Your task to perform on an android device: delete the emails in spam in the gmail app Image 0: 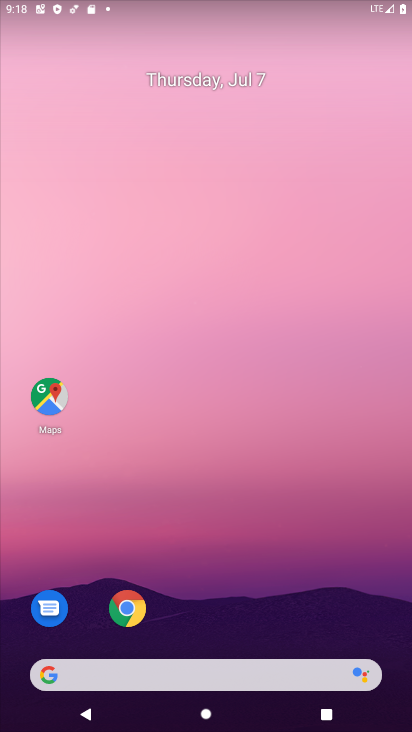
Step 0: drag from (178, 648) to (153, 131)
Your task to perform on an android device: delete the emails in spam in the gmail app Image 1: 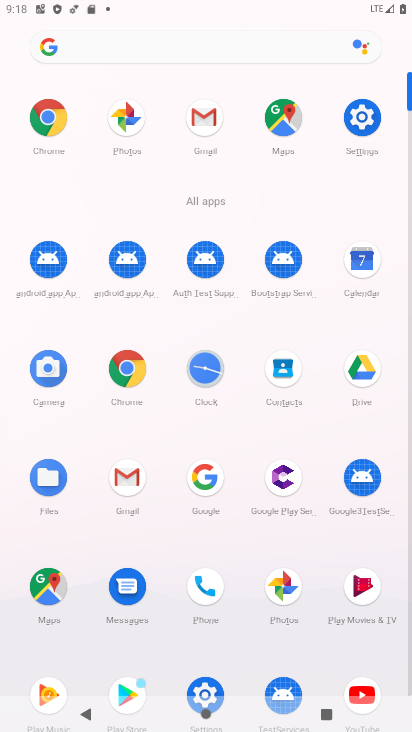
Step 1: click (204, 117)
Your task to perform on an android device: delete the emails in spam in the gmail app Image 2: 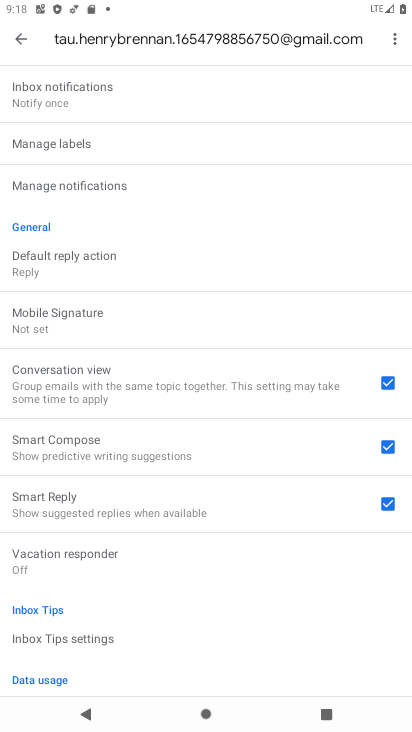
Step 2: press back button
Your task to perform on an android device: delete the emails in spam in the gmail app Image 3: 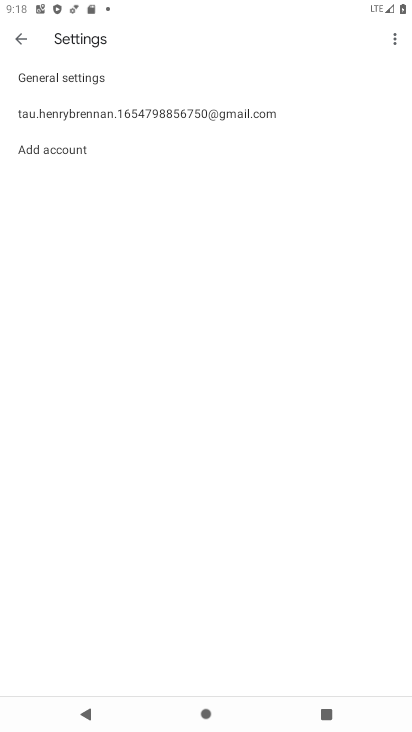
Step 3: press back button
Your task to perform on an android device: delete the emails in spam in the gmail app Image 4: 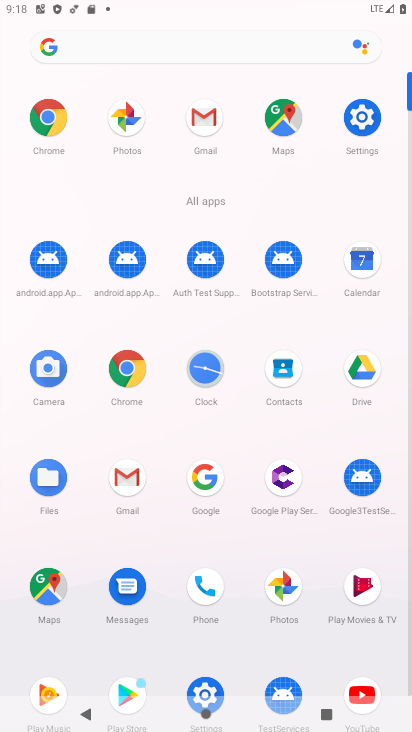
Step 4: click (210, 117)
Your task to perform on an android device: delete the emails in spam in the gmail app Image 5: 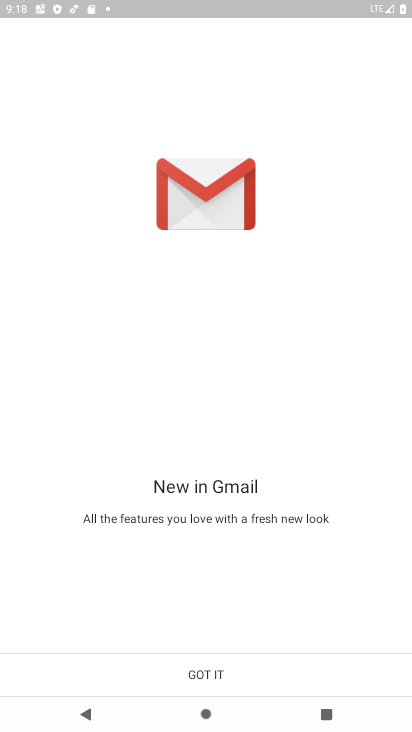
Step 5: click (206, 672)
Your task to perform on an android device: delete the emails in spam in the gmail app Image 6: 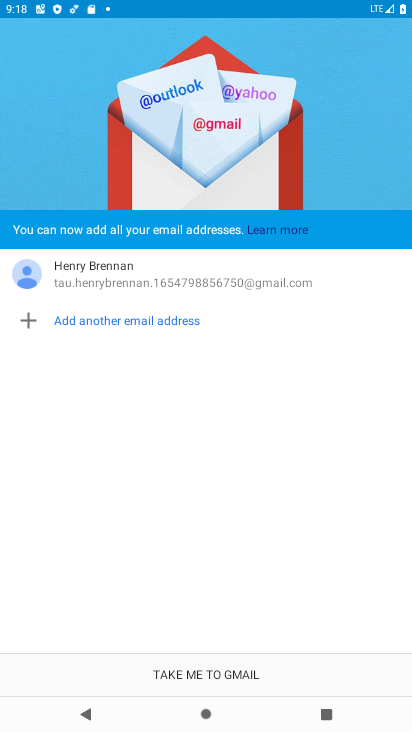
Step 6: click (206, 672)
Your task to perform on an android device: delete the emails in spam in the gmail app Image 7: 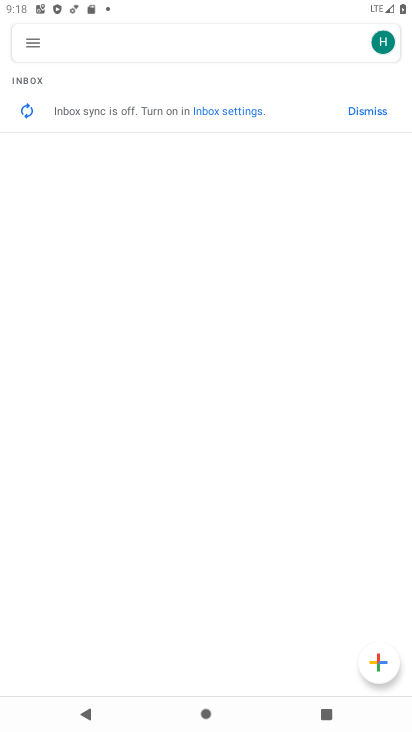
Step 7: click (38, 44)
Your task to perform on an android device: delete the emails in spam in the gmail app Image 8: 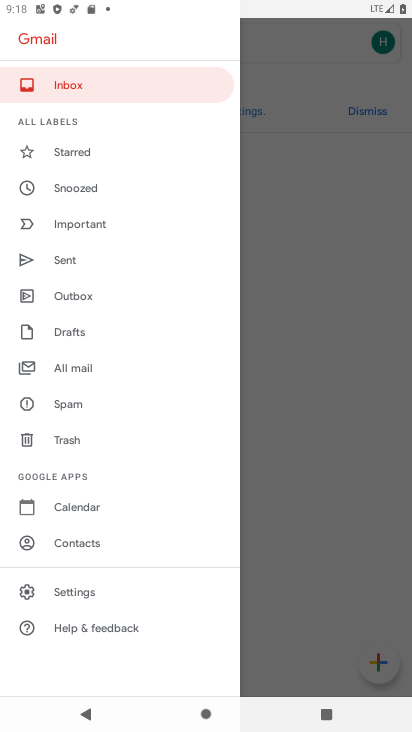
Step 8: click (72, 368)
Your task to perform on an android device: delete the emails in spam in the gmail app Image 9: 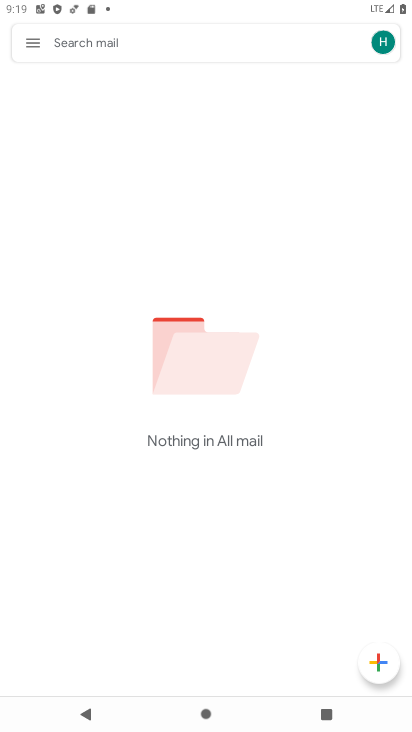
Step 9: task complete